Your task to perform on an android device: add a contact in the contacts app Image 0: 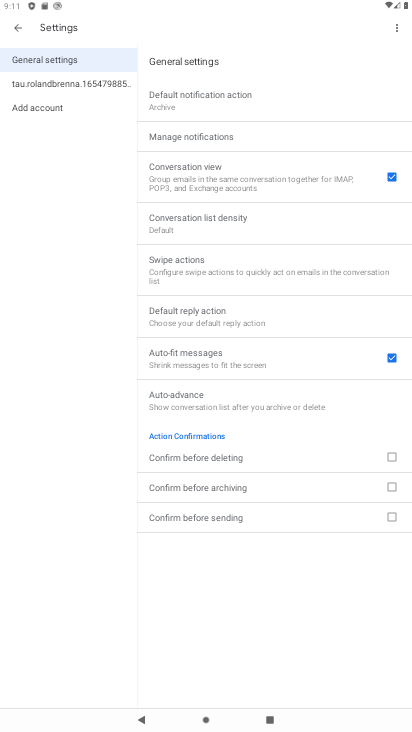
Step 0: press home button
Your task to perform on an android device: add a contact in the contacts app Image 1: 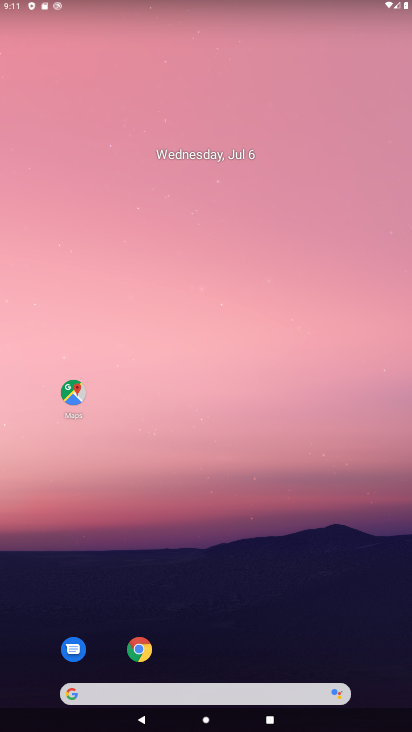
Step 1: drag from (224, 593) to (183, 47)
Your task to perform on an android device: add a contact in the contacts app Image 2: 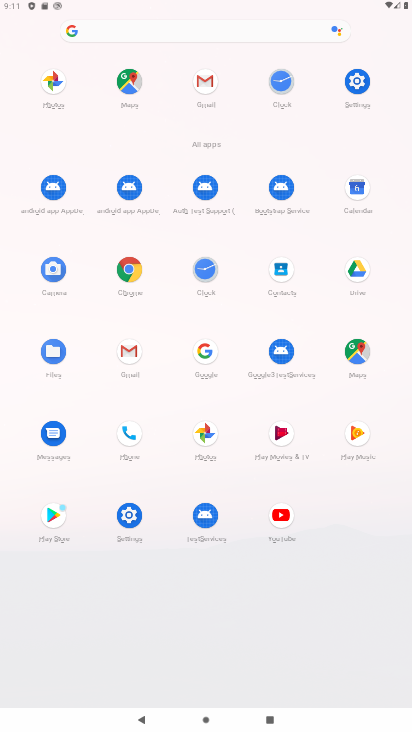
Step 2: click (287, 267)
Your task to perform on an android device: add a contact in the contacts app Image 3: 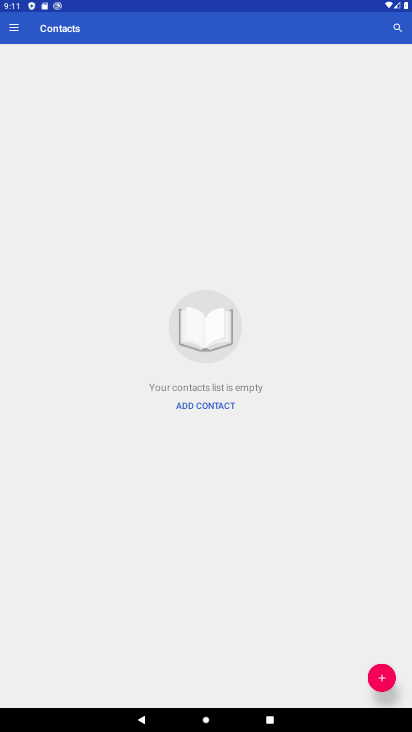
Step 3: click (386, 677)
Your task to perform on an android device: add a contact in the contacts app Image 4: 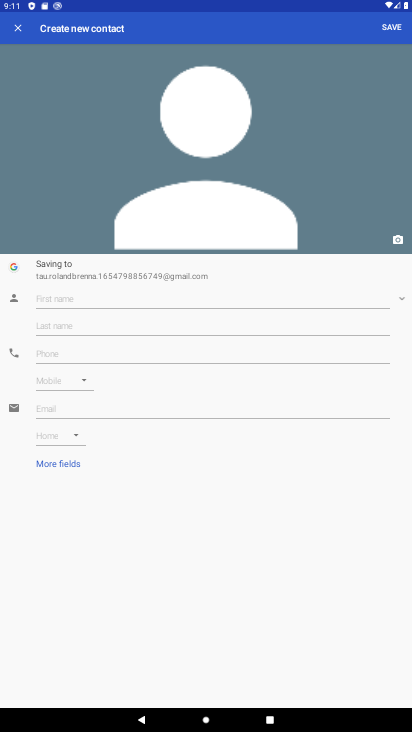
Step 4: click (148, 293)
Your task to perform on an android device: add a contact in the contacts app Image 5: 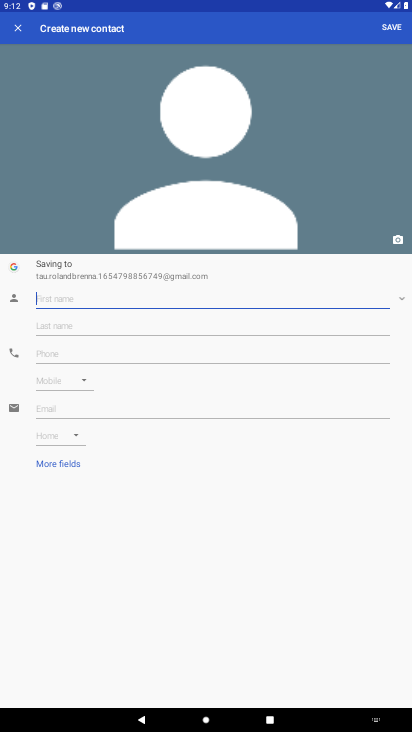
Step 5: type "Pakeshwar Mani Tripathi"
Your task to perform on an android device: add a contact in the contacts app Image 6: 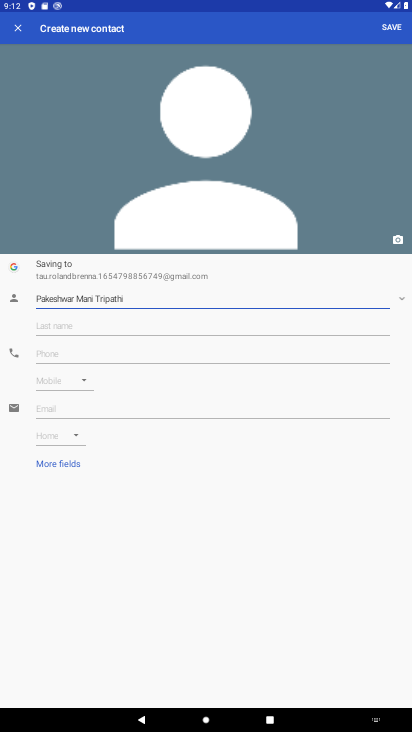
Step 6: click (75, 355)
Your task to perform on an android device: add a contact in the contacts app Image 7: 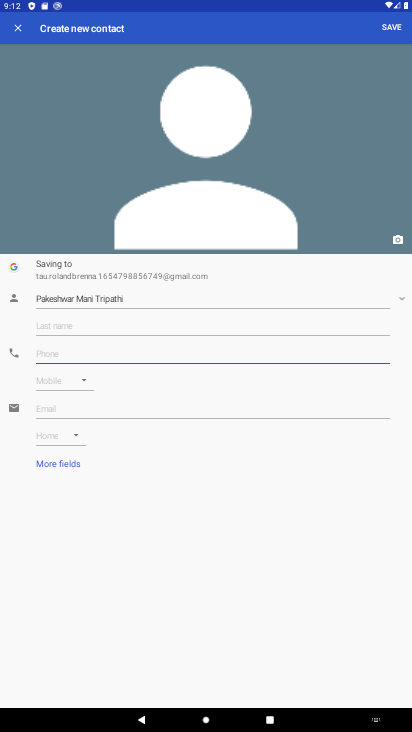
Step 7: type "09988776655"
Your task to perform on an android device: add a contact in the contacts app Image 8: 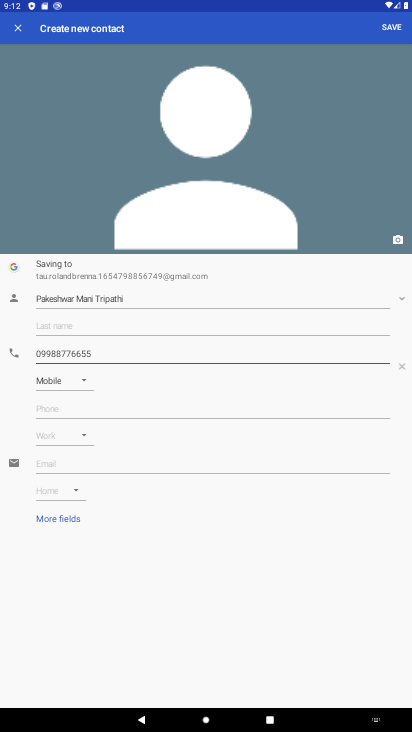
Step 8: click (391, 25)
Your task to perform on an android device: add a contact in the contacts app Image 9: 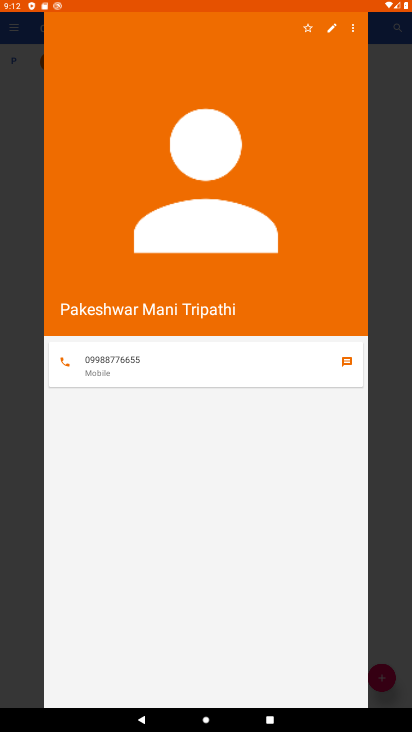
Step 9: task complete